Your task to perform on an android device: Open Maps and search for coffee Image 0: 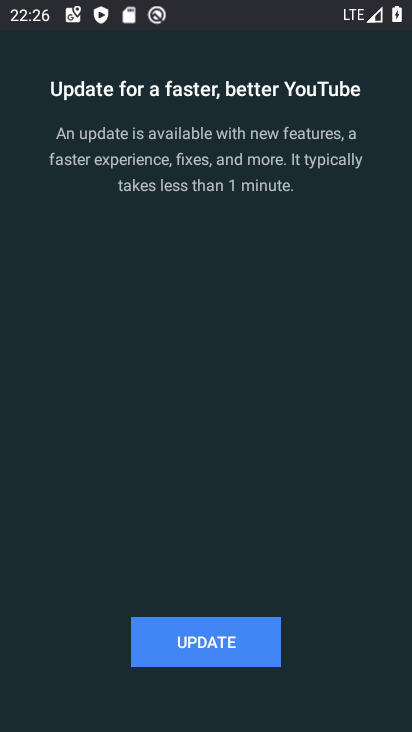
Step 0: press home button
Your task to perform on an android device: Open Maps and search for coffee Image 1: 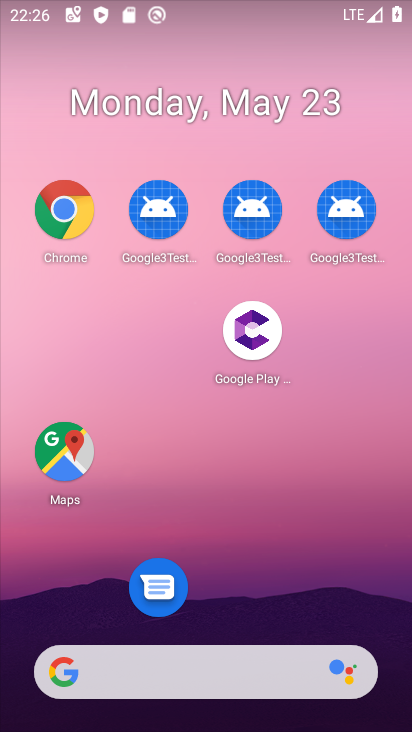
Step 1: click (44, 462)
Your task to perform on an android device: Open Maps and search for coffee Image 2: 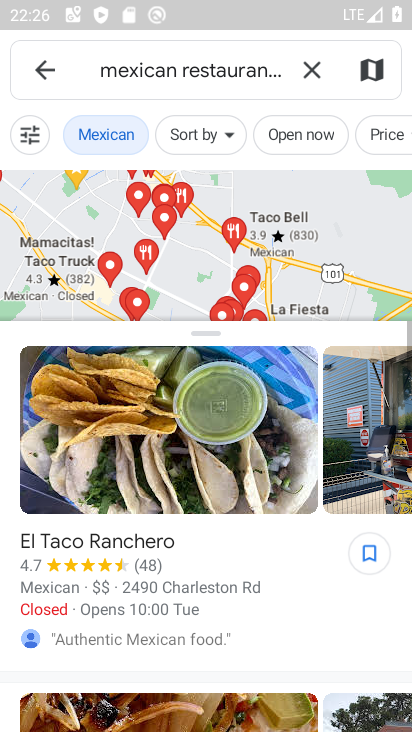
Step 2: click (308, 69)
Your task to perform on an android device: Open Maps and search for coffee Image 3: 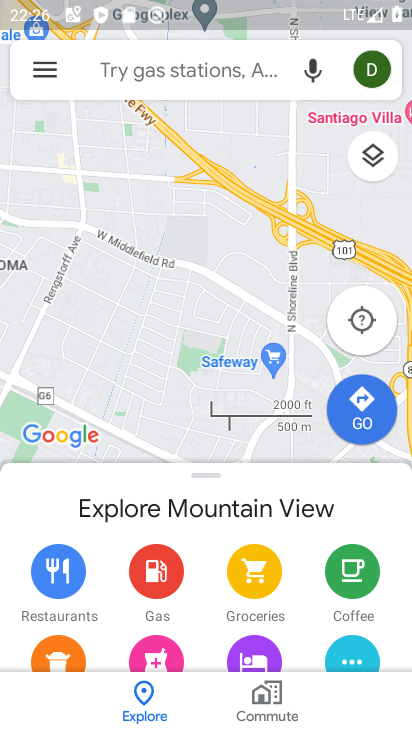
Step 3: click (211, 72)
Your task to perform on an android device: Open Maps and search for coffee Image 4: 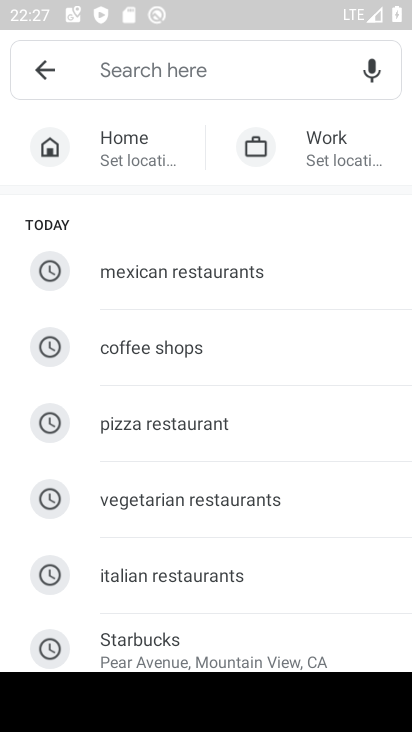
Step 4: drag from (281, 514) to (249, 86)
Your task to perform on an android device: Open Maps and search for coffee Image 5: 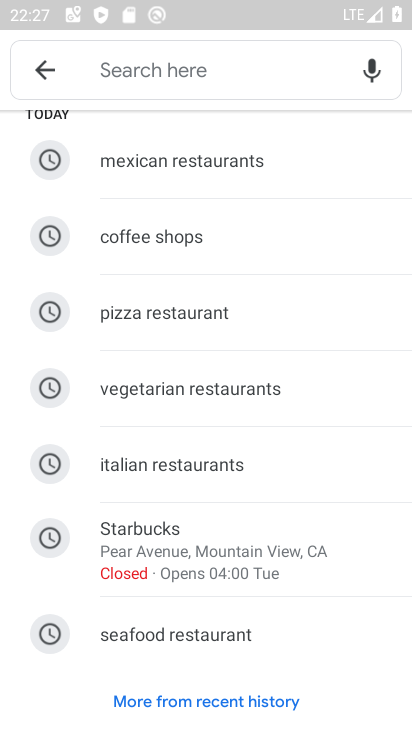
Step 5: drag from (217, 544) to (177, 260)
Your task to perform on an android device: Open Maps and search for coffee Image 6: 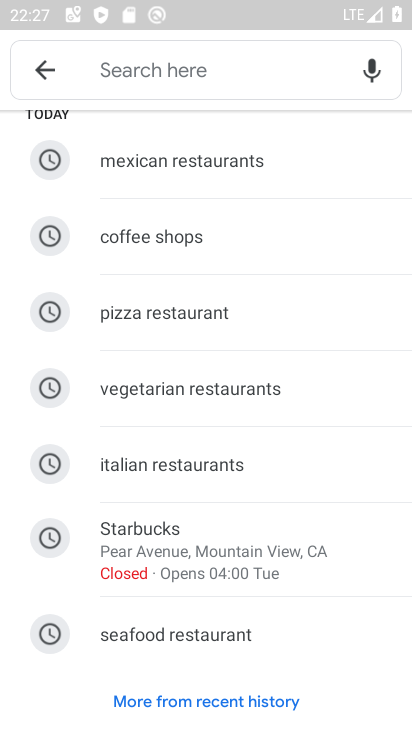
Step 6: click (232, 62)
Your task to perform on an android device: Open Maps and search for coffee Image 7: 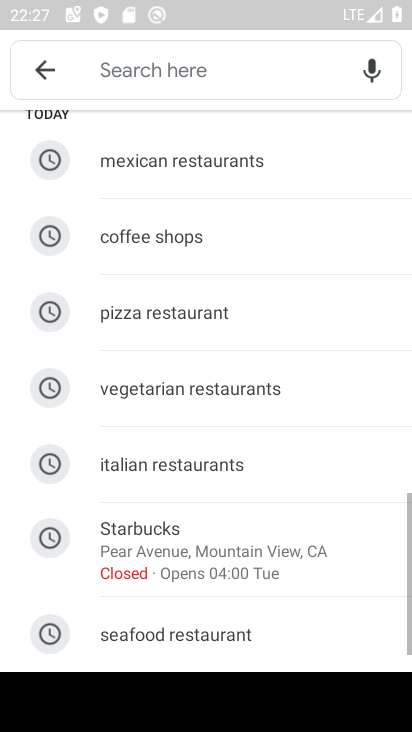
Step 7: click (232, 62)
Your task to perform on an android device: Open Maps and search for coffee Image 8: 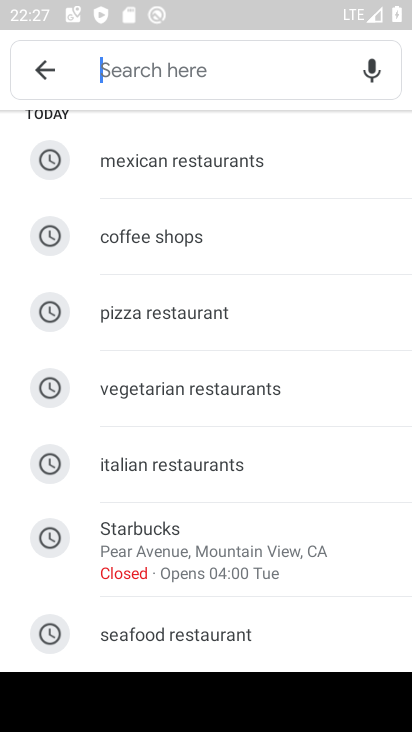
Step 8: type "coffee"
Your task to perform on an android device: Open Maps and search for coffee Image 9: 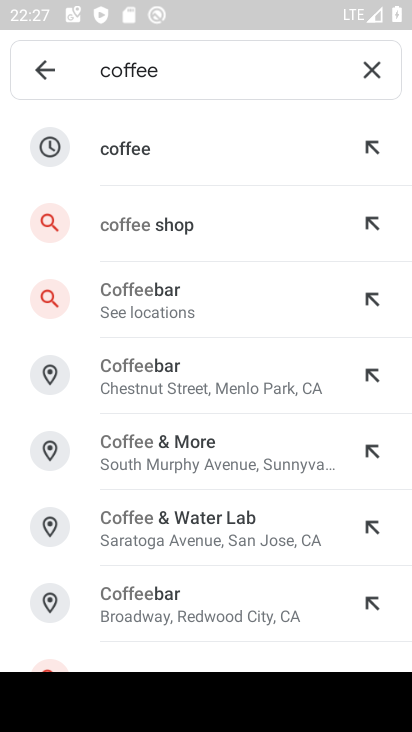
Step 9: click (248, 132)
Your task to perform on an android device: Open Maps and search for coffee Image 10: 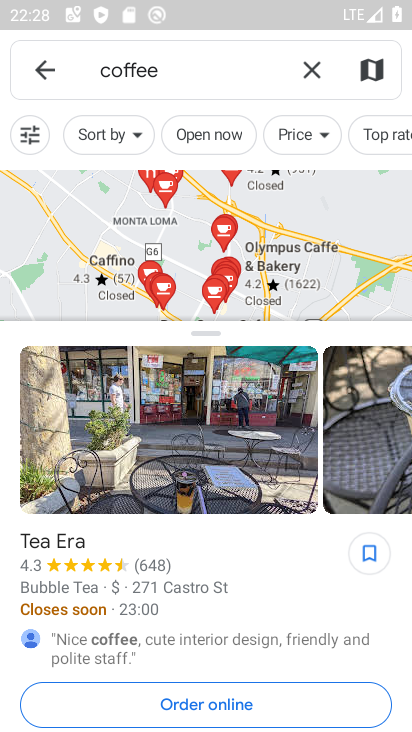
Step 10: task complete